Your task to perform on an android device: Open Yahoo.com Image 0: 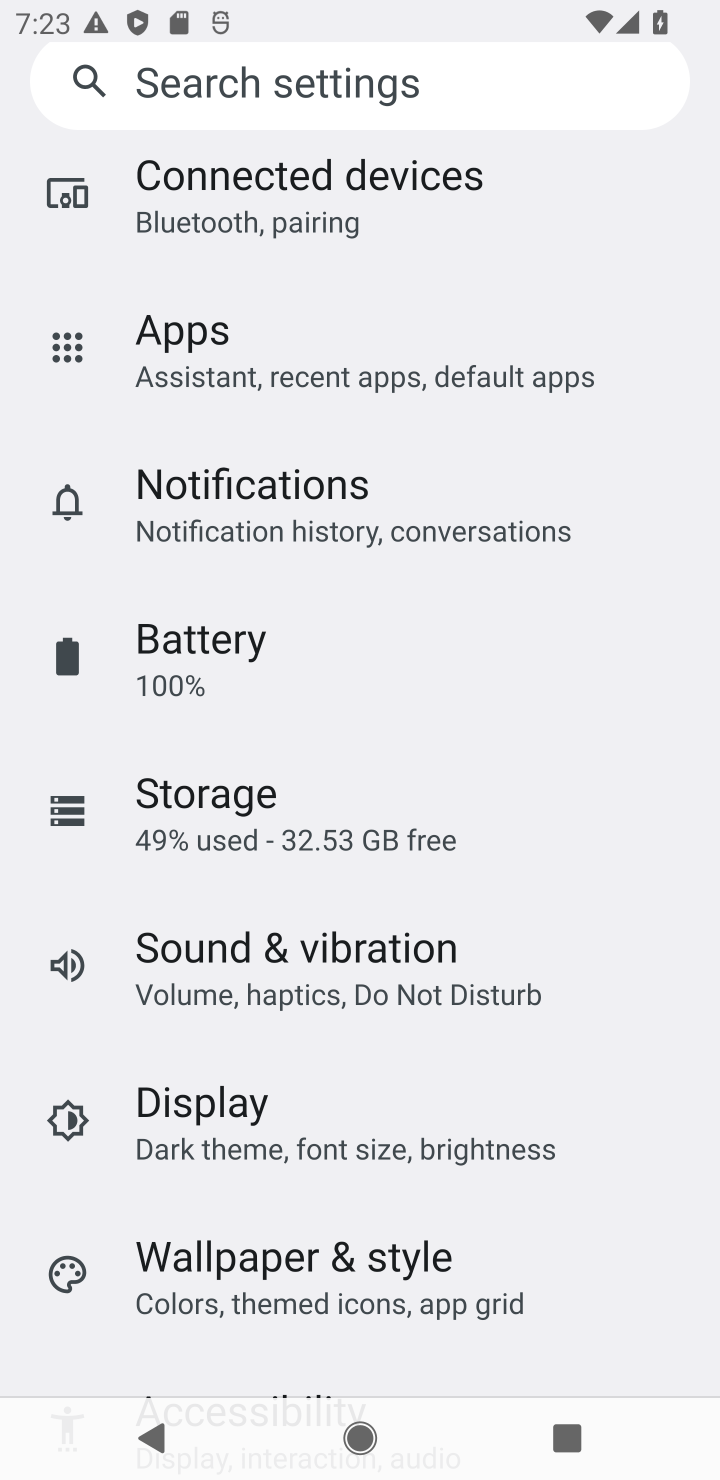
Step 0: press home button
Your task to perform on an android device: Open Yahoo.com Image 1: 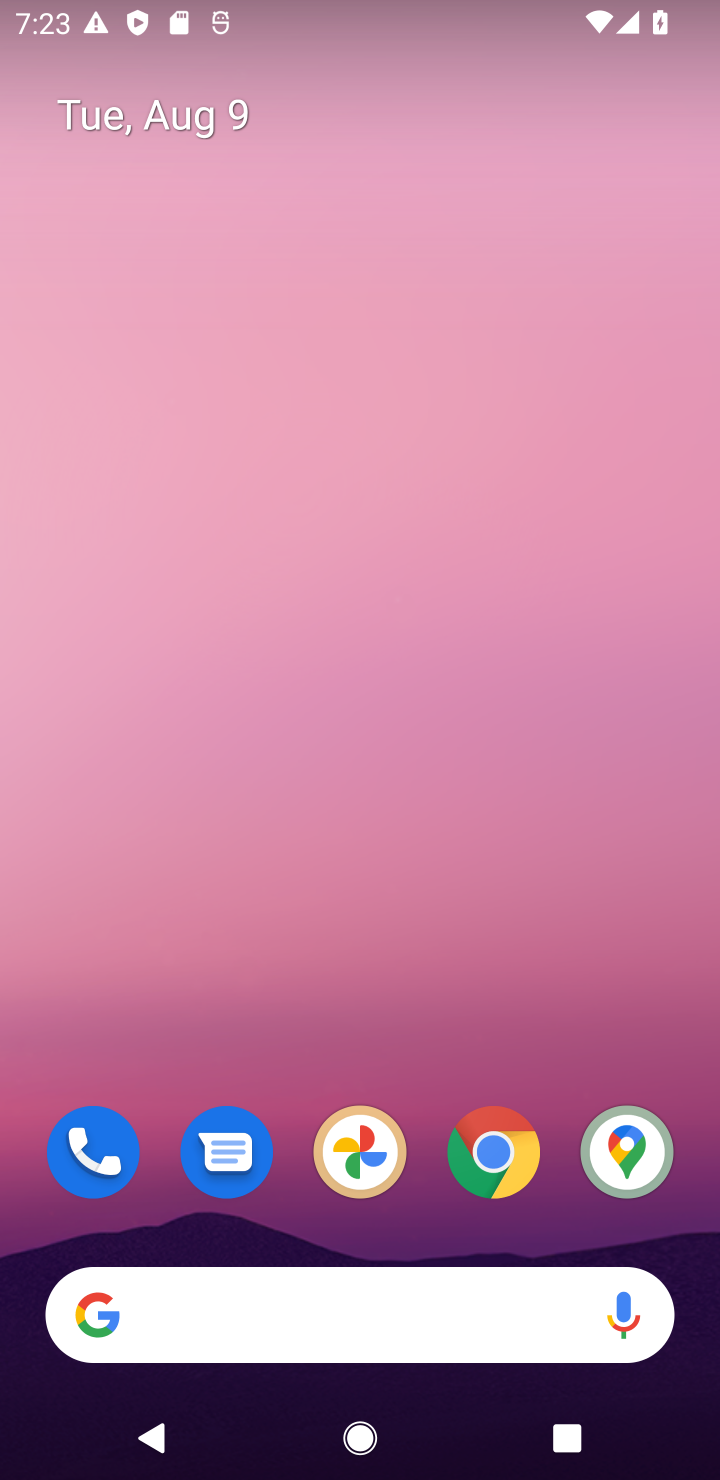
Step 1: click (491, 1158)
Your task to perform on an android device: Open Yahoo.com Image 2: 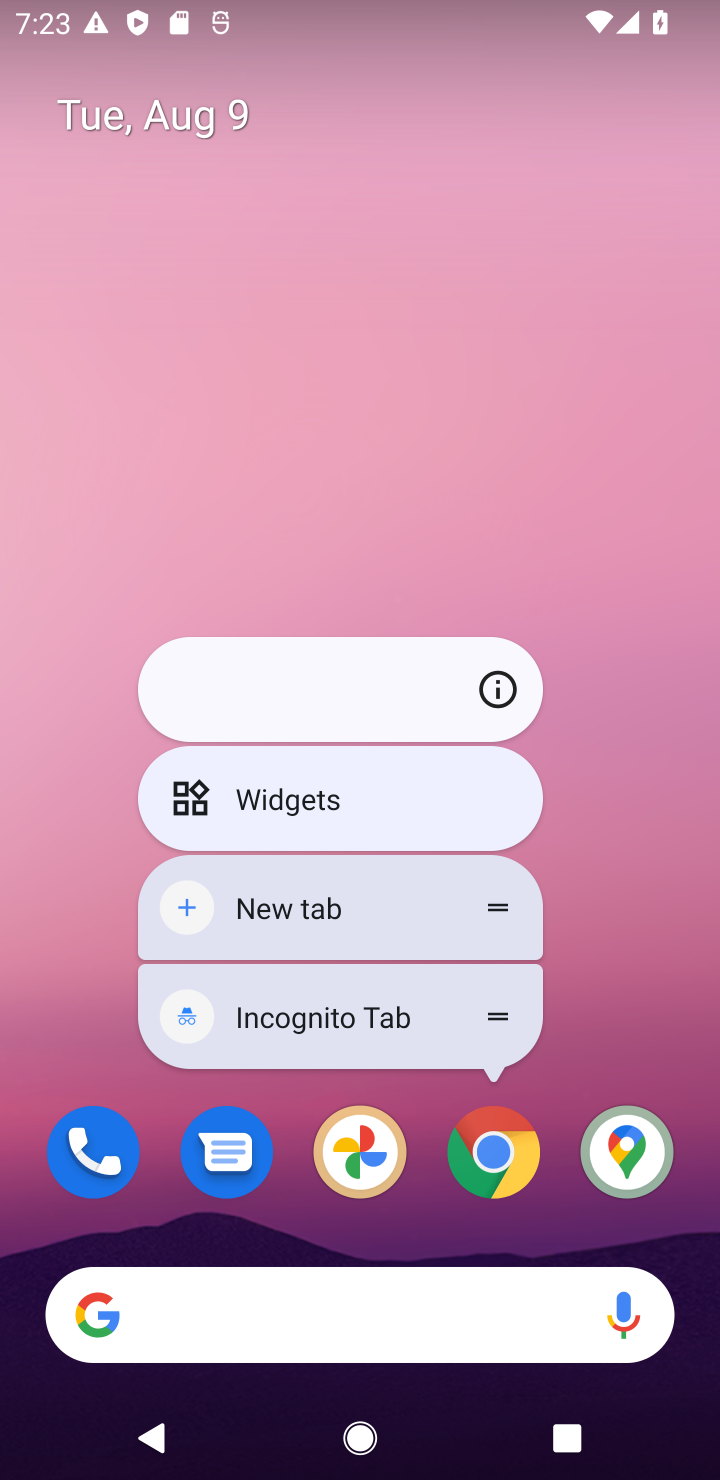
Step 2: click (491, 1158)
Your task to perform on an android device: Open Yahoo.com Image 3: 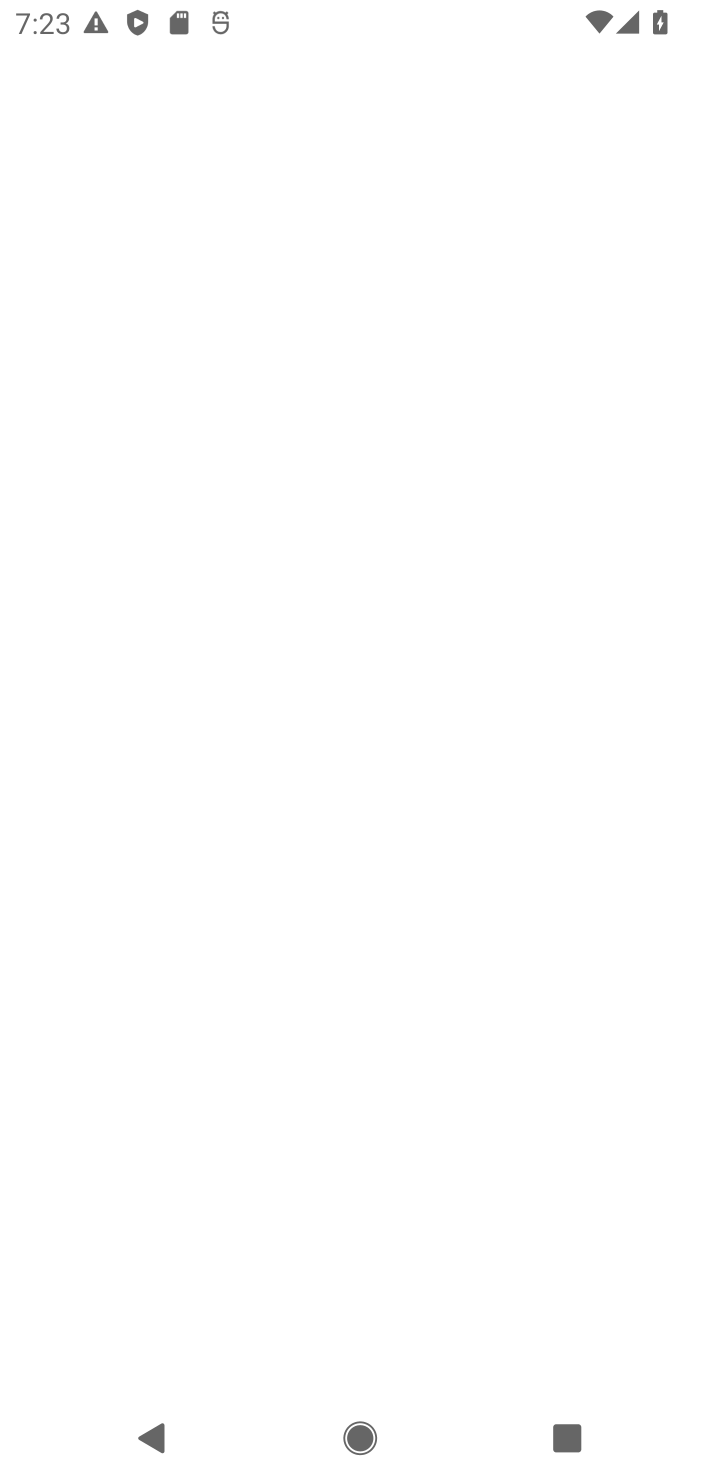
Step 3: click (491, 1158)
Your task to perform on an android device: Open Yahoo.com Image 4: 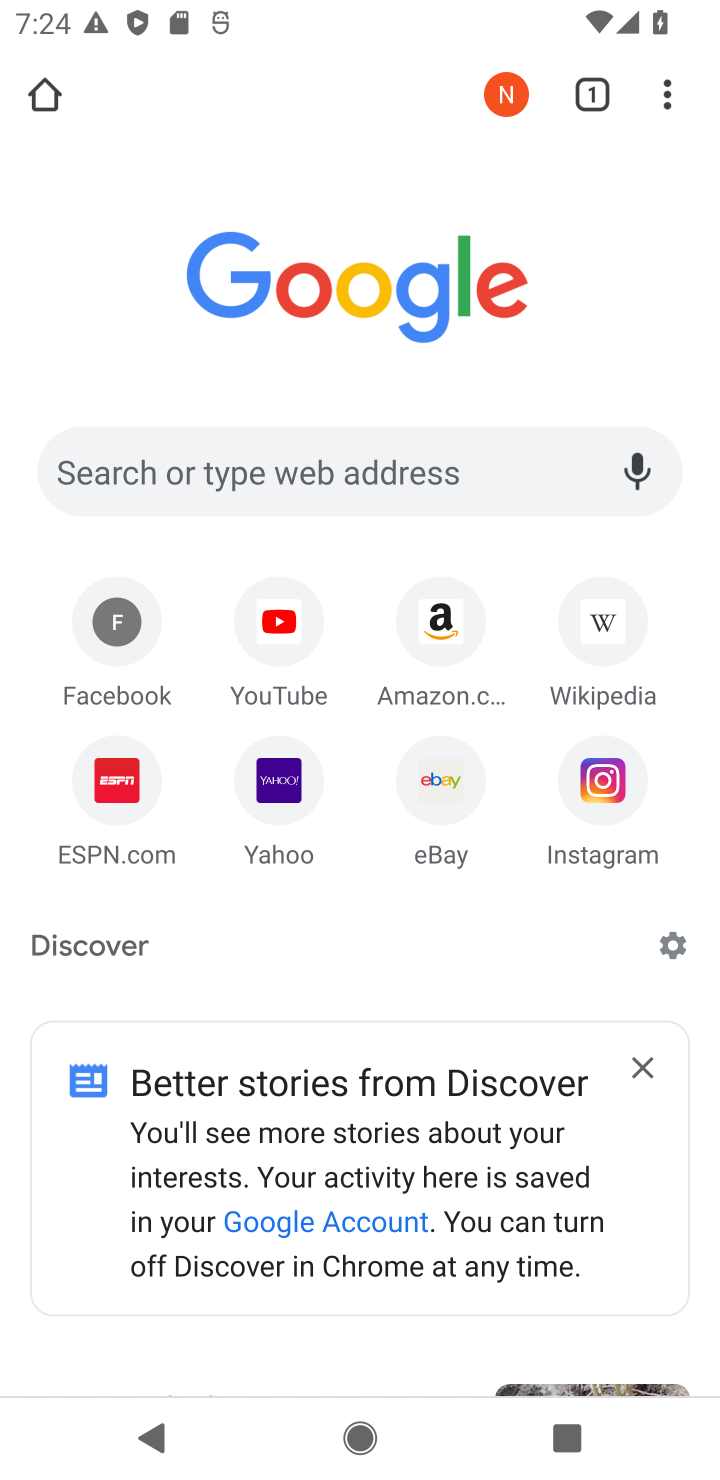
Step 4: click (290, 773)
Your task to perform on an android device: Open Yahoo.com Image 5: 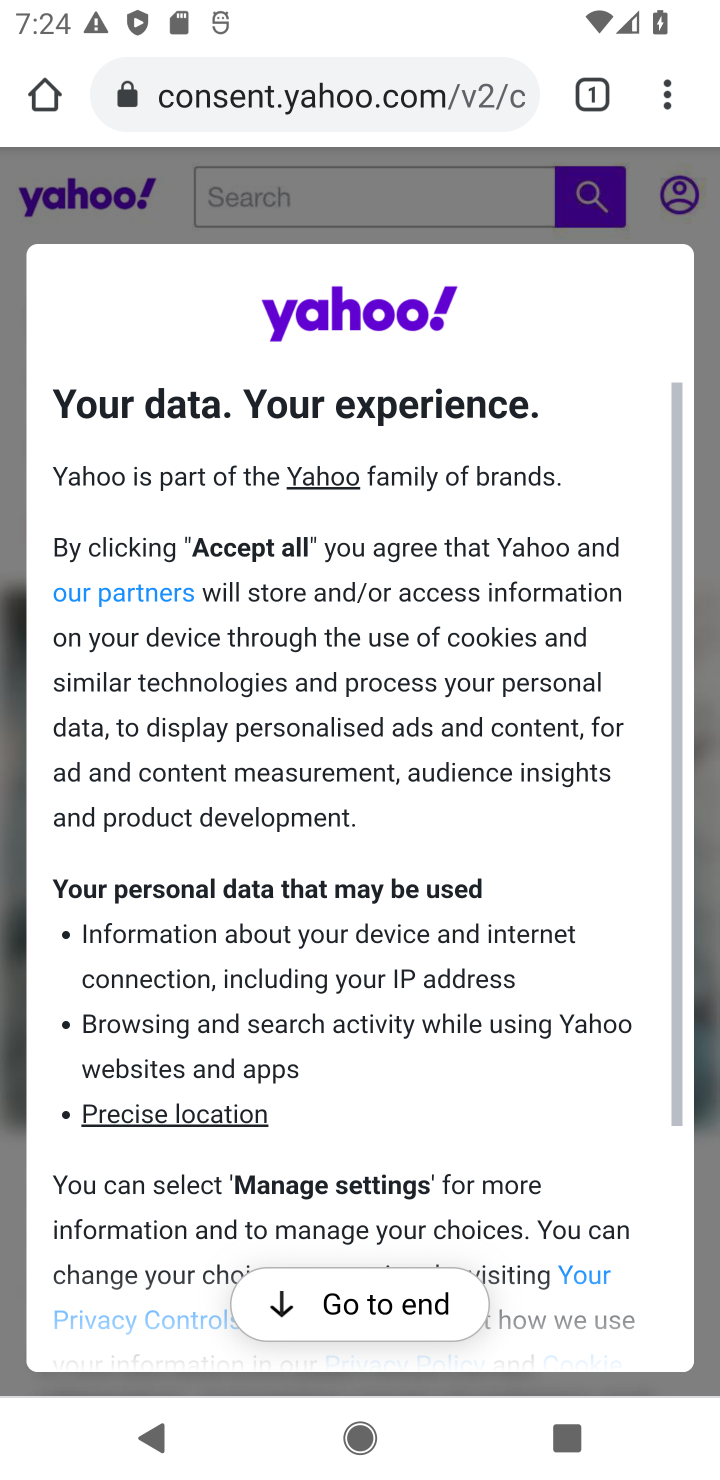
Step 5: task complete